Your task to perform on an android device: Go to CNN.com Image 0: 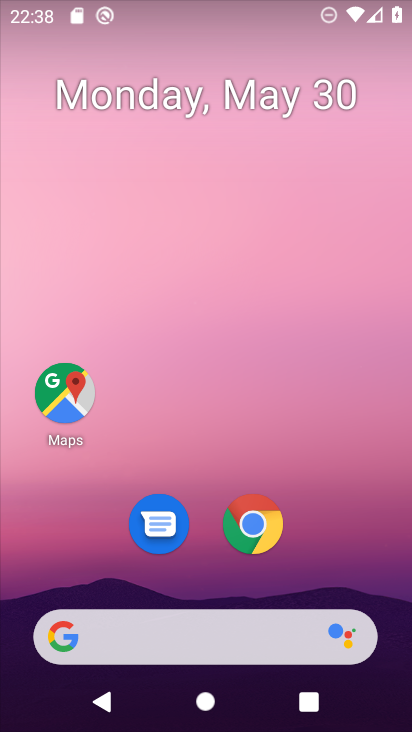
Step 0: click (231, 638)
Your task to perform on an android device: Go to CNN.com Image 1: 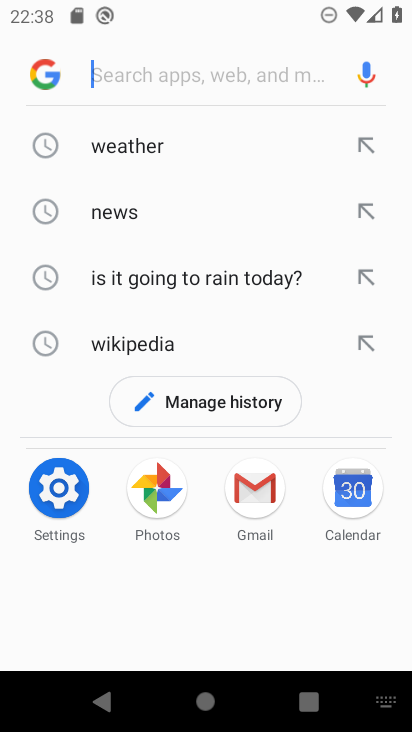
Step 1: type "cnn.com"
Your task to perform on an android device: Go to CNN.com Image 2: 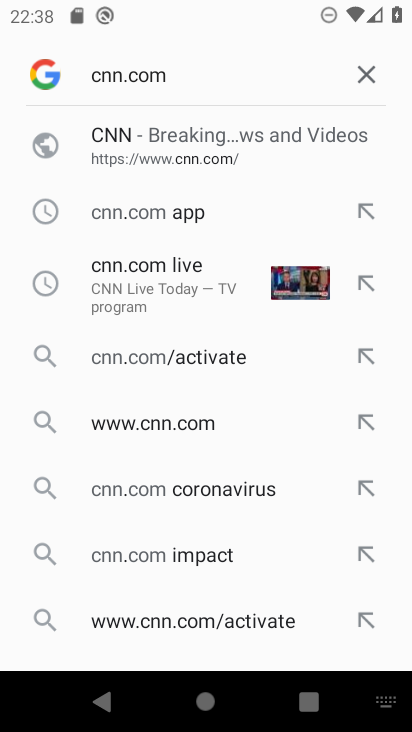
Step 2: click (167, 138)
Your task to perform on an android device: Go to CNN.com Image 3: 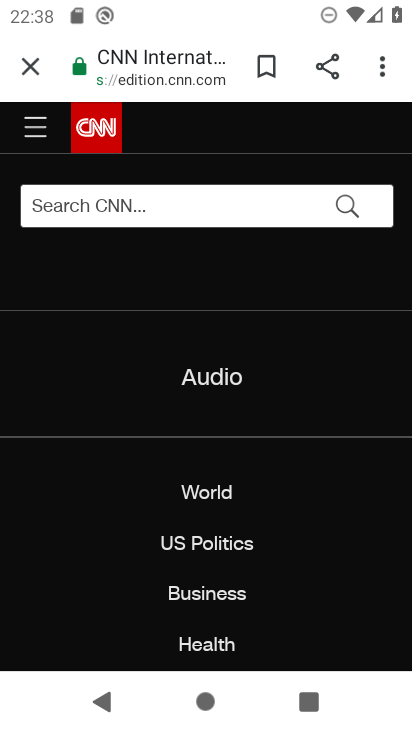
Step 3: task complete